Your task to perform on an android device: Open Youtube and go to "Your channel" Image 0: 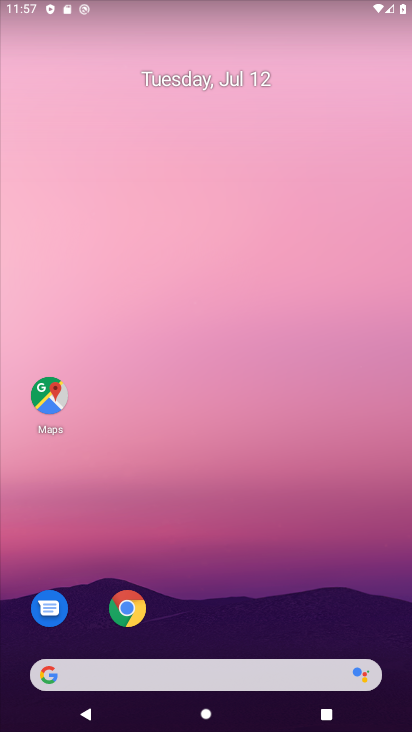
Step 0: drag from (241, 654) to (263, 94)
Your task to perform on an android device: Open Youtube and go to "Your channel" Image 1: 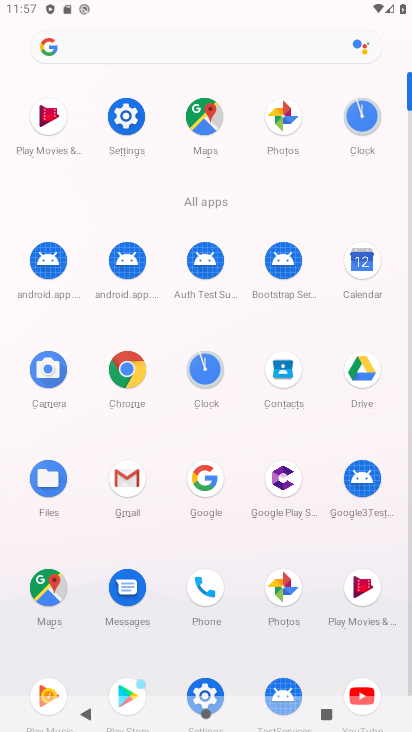
Step 1: click (366, 683)
Your task to perform on an android device: Open Youtube and go to "Your channel" Image 2: 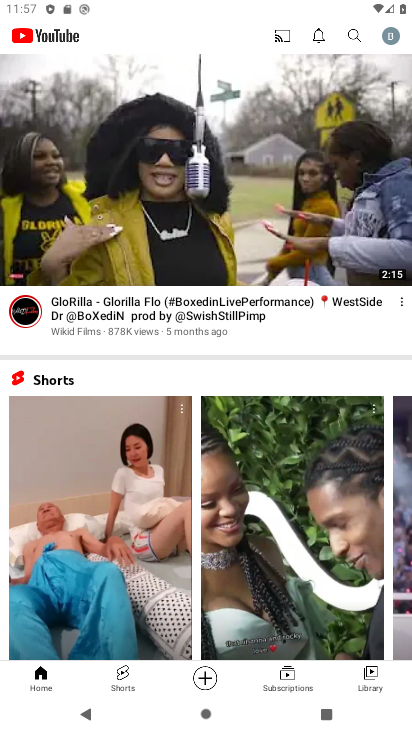
Step 2: click (392, 34)
Your task to perform on an android device: Open Youtube and go to "Your channel" Image 3: 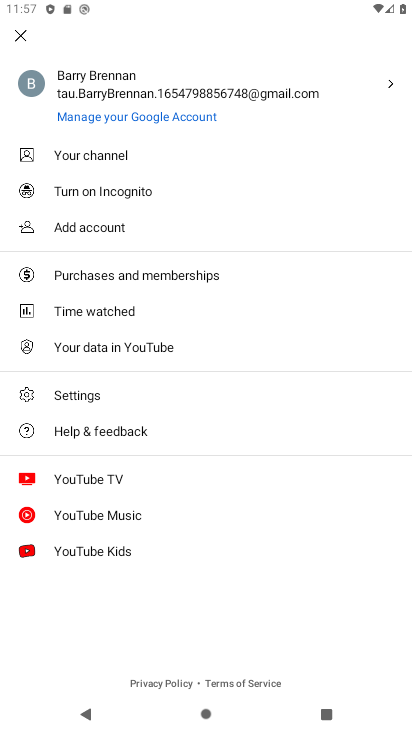
Step 3: click (105, 164)
Your task to perform on an android device: Open Youtube and go to "Your channel" Image 4: 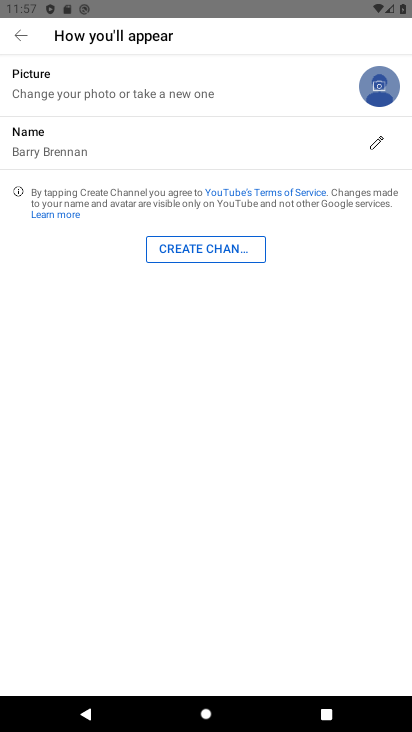
Step 4: task complete